Your task to perform on an android device: Open sound settings Image 0: 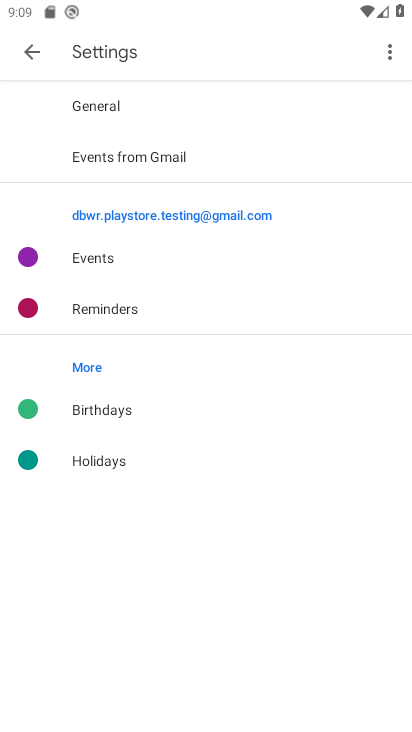
Step 0: press home button
Your task to perform on an android device: Open sound settings Image 1: 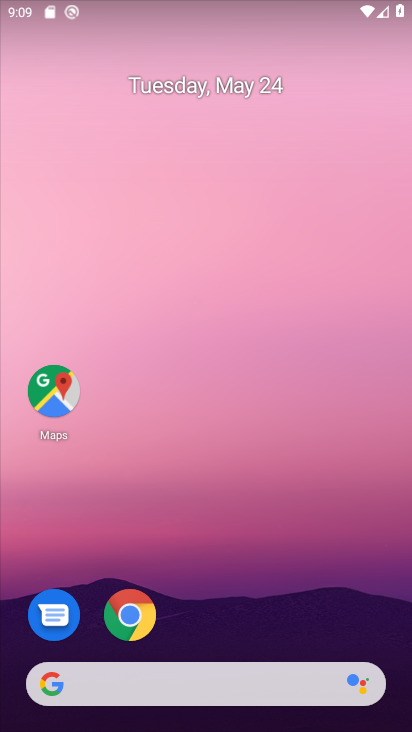
Step 1: drag from (382, 612) to (370, 289)
Your task to perform on an android device: Open sound settings Image 2: 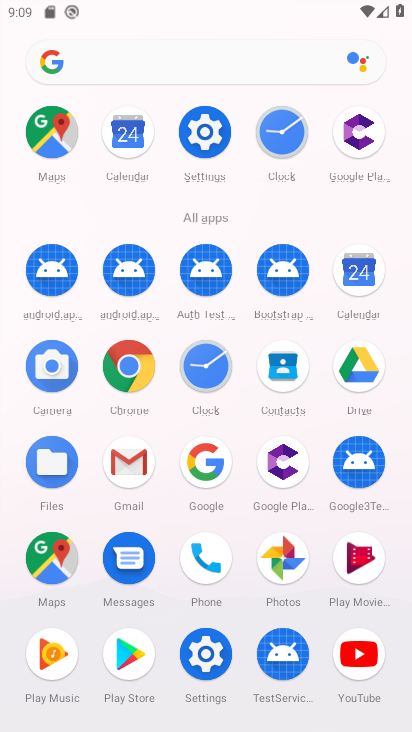
Step 2: click (216, 666)
Your task to perform on an android device: Open sound settings Image 3: 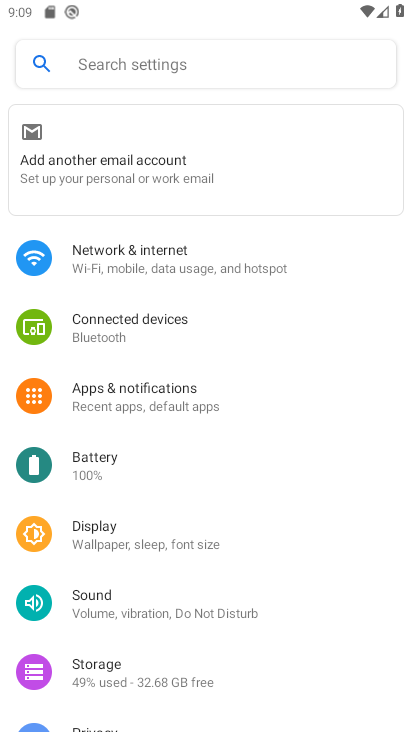
Step 3: drag from (361, 370) to (359, 524)
Your task to perform on an android device: Open sound settings Image 4: 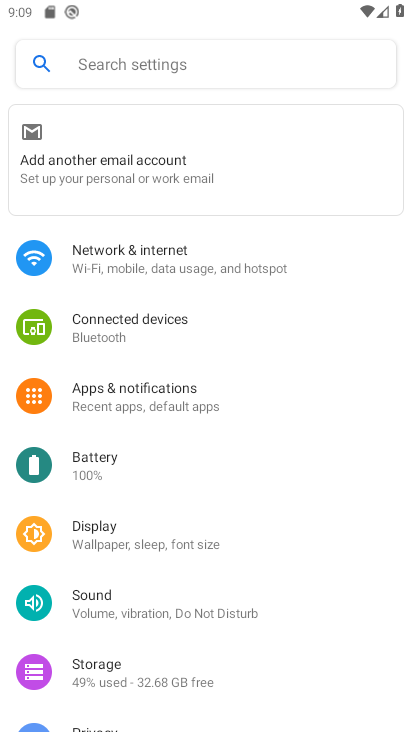
Step 4: drag from (336, 624) to (341, 507)
Your task to perform on an android device: Open sound settings Image 5: 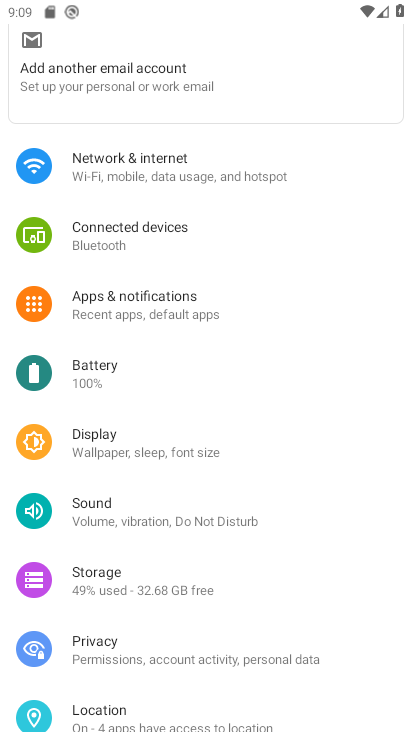
Step 5: drag from (362, 642) to (369, 552)
Your task to perform on an android device: Open sound settings Image 6: 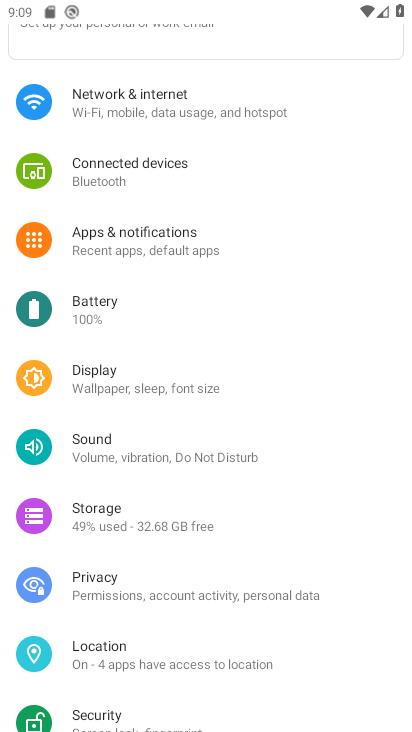
Step 6: drag from (376, 646) to (356, 518)
Your task to perform on an android device: Open sound settings Image 7: 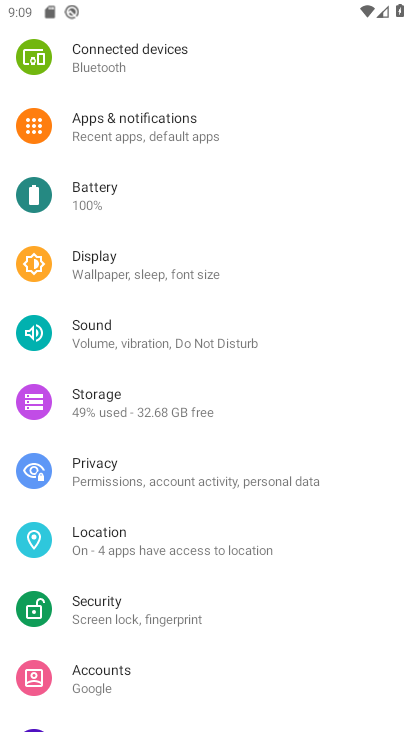
Step 7: drag from (374, 625) to (362, 520)
Your task to perform on an android device: Open sound settings Image 8: 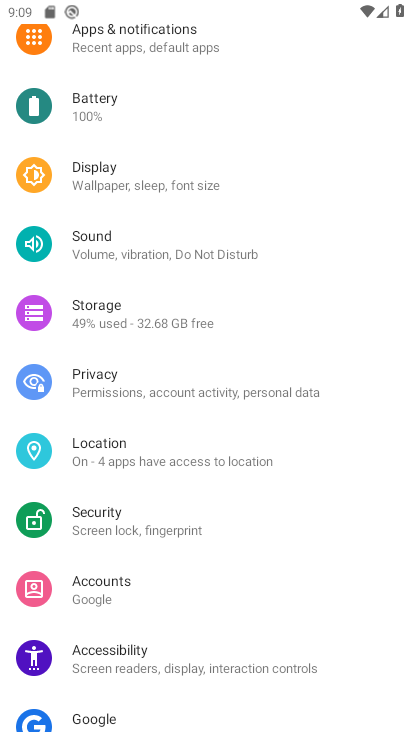
Step 8: drag from (351, 622) to (342, 517)
Your task to perform on an android device: Open sound settings Image 9: 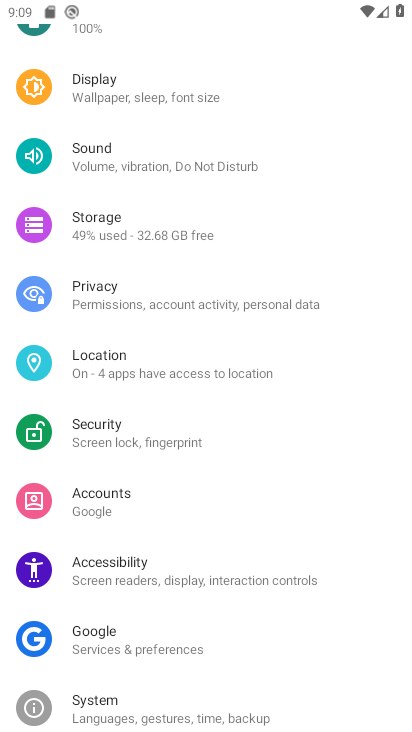
Step 9: drag from (333, 622) to (333, 514)
Your task to perform on an android device: Open sound settings Image 10: 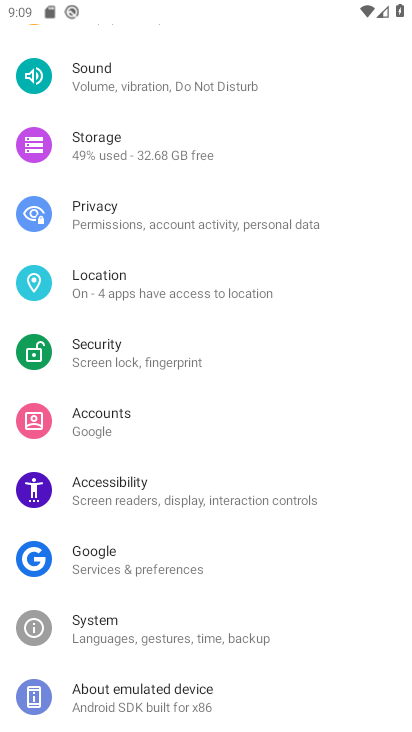
Step 10: drag from (345, 402) to (338, 521)
Your task to perform on an android device: Open sound settings Image 11: 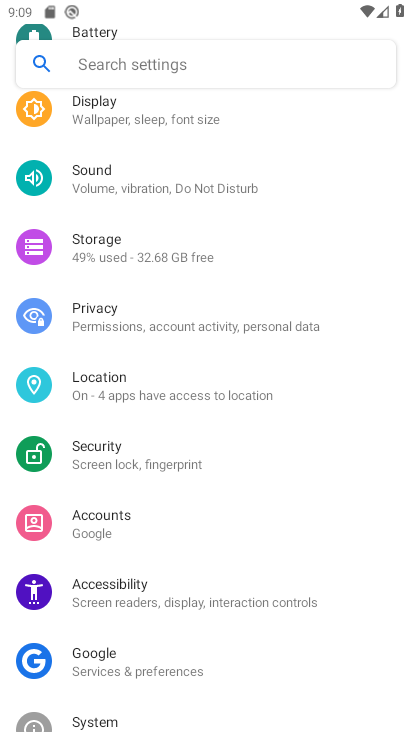
Step 11: drag from (348, 355) to (336, 506)
Your task to perform on an android device: Open sound settings Image 12: 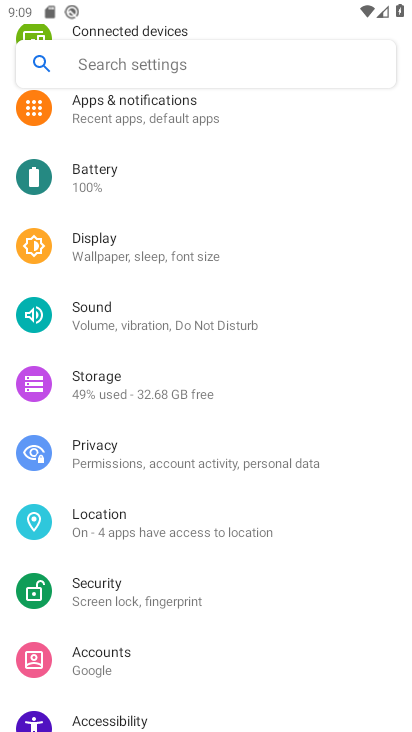
Step 12: drag from (339, 348) to (327, 462)
Your task to perform on an android device: Open sound settings Image 13: 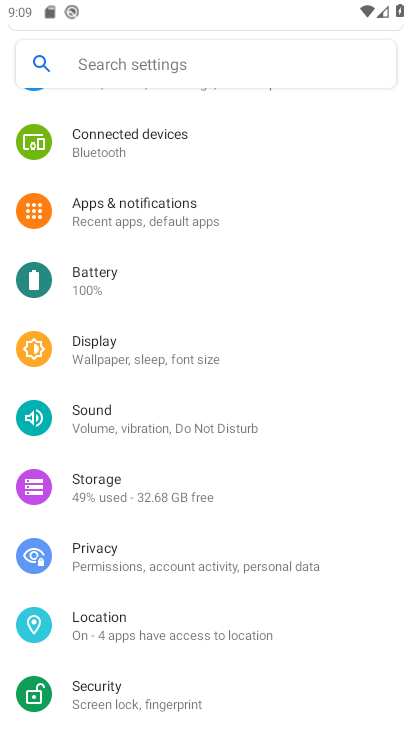
Step 13: drag from (330, 346) to (338, 453)
Your task to perform on an android device: Open sound settings Image 14: 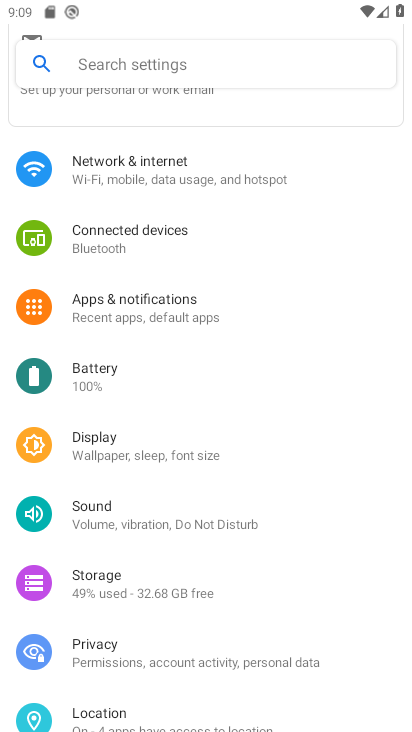
Step 14: click (238, 520)
Your task to perform on an android device: Open sound settings Image 15: 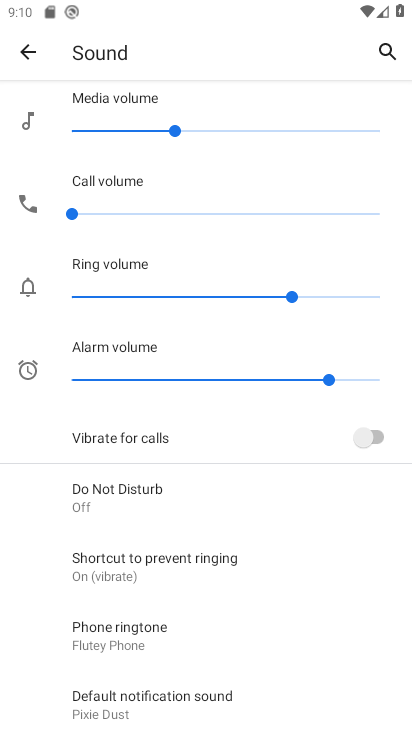
Step 15: task complete